Your task to perform on an android device: change notification settings in the gmail app Image 0: 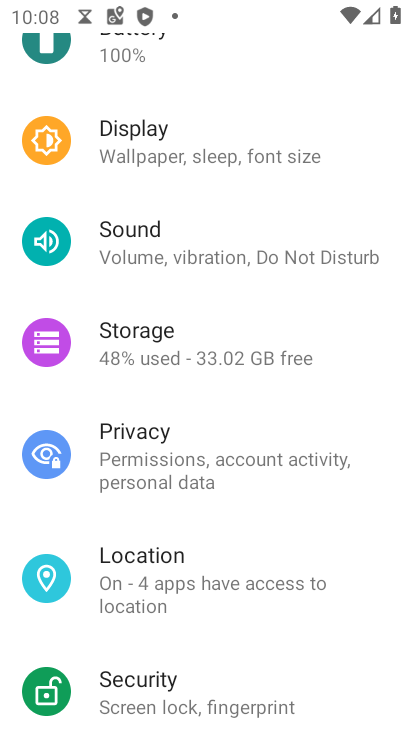
Step 0: press back button
Your task to perform on an android device: change notification settings in the gmail app Image 1: 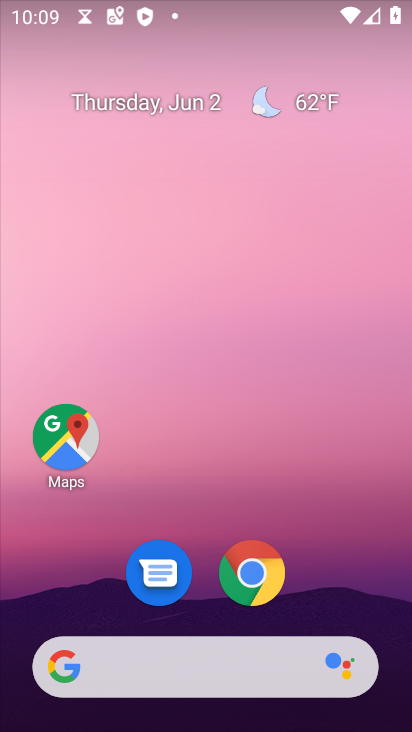
Step 1: drag from (332, 531) to (293, 132)
Your task to perform on an android device: change notification settings in the gmail app Image 2: 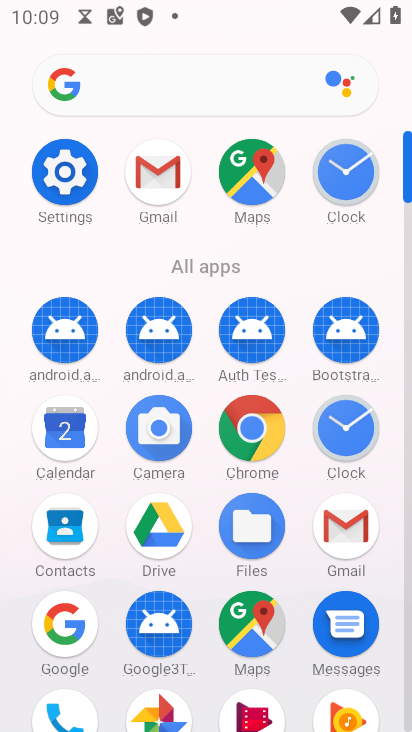
Step 2: click (159, 172)
Your task to perform on an android device: change notification settings in the gmail app Image 3: 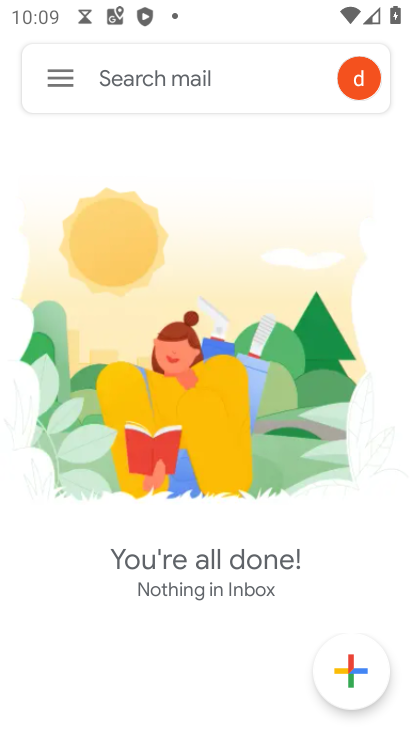
Step 3: click (58, 81)
Your task to perform on an android device: change notification settings in the gmail app Image 4: 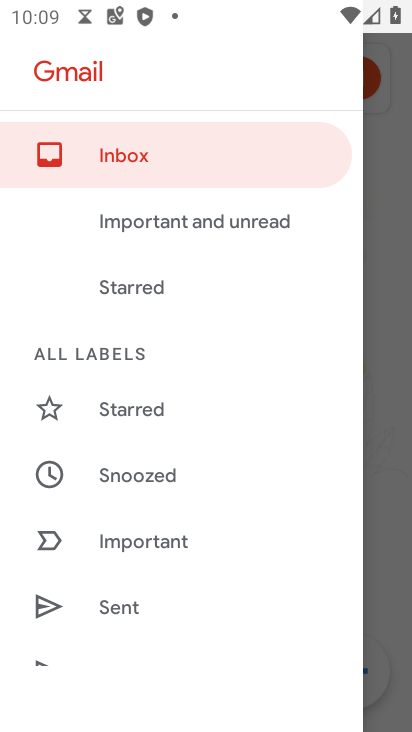
Step 4: drag from (132, 317) to (213, 198)
Your task to perform on an android device: change notification settings in the gmail app Image 5: 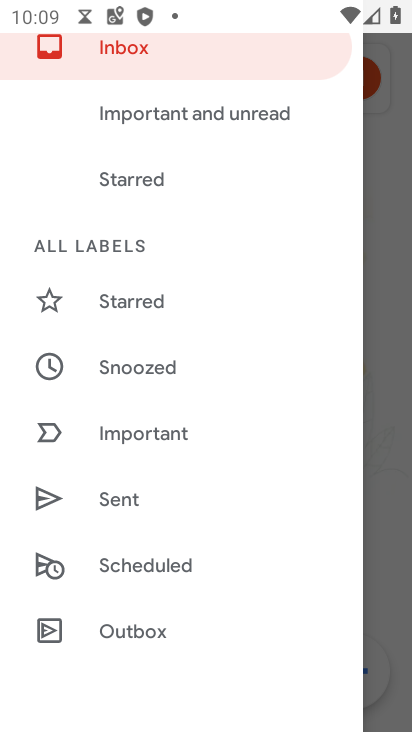
Step 5: drag from (136, 344) to (229, 228)
Your task to perform on an android device: change notification settings in the gmail app Image 6: 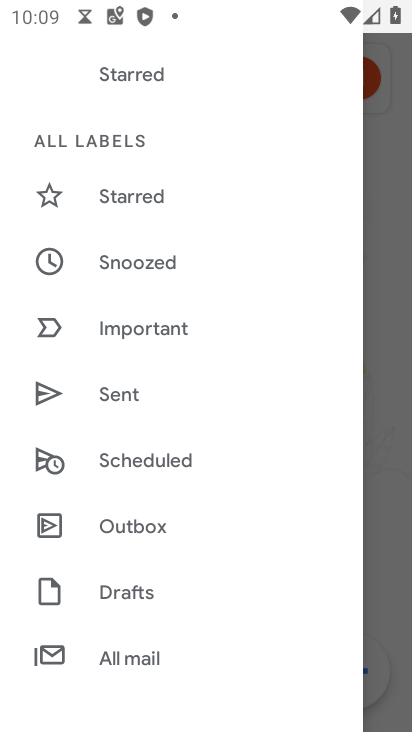
Step 6: drag from (149, 304) to (232, 198)
Your task to perform on an android device: change notification settings in the gmail app Image 7: 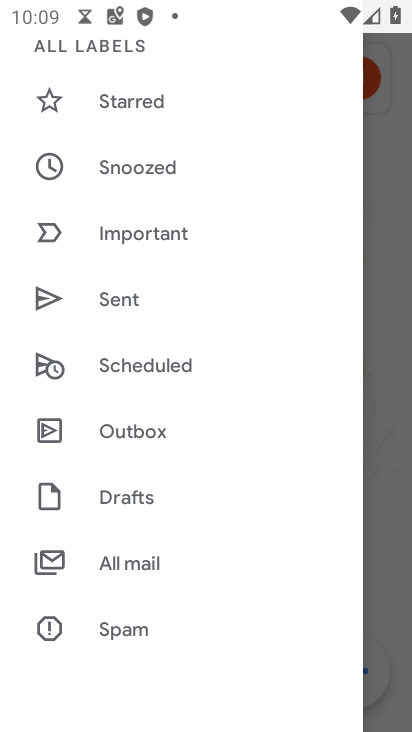
Step 7: drag from (132, 334) to (213, 241)
Your task to perform on an android device: change notification settings in the gmail app Image 8: 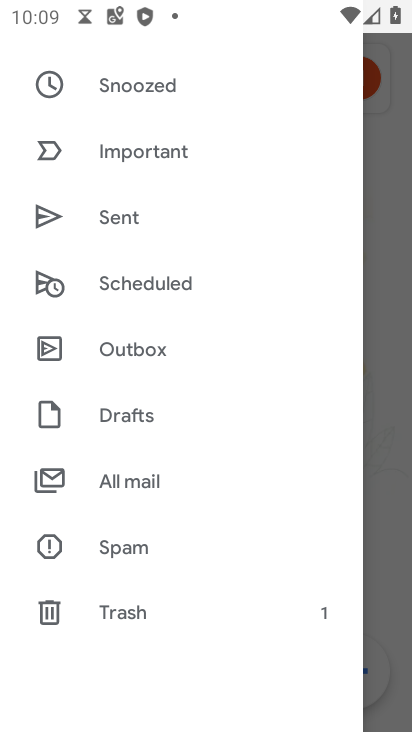
Step 8: drag from (143, 316) to (230, 217)
Your task to perform on an android device: change notification settings in the gmail app Image 9: 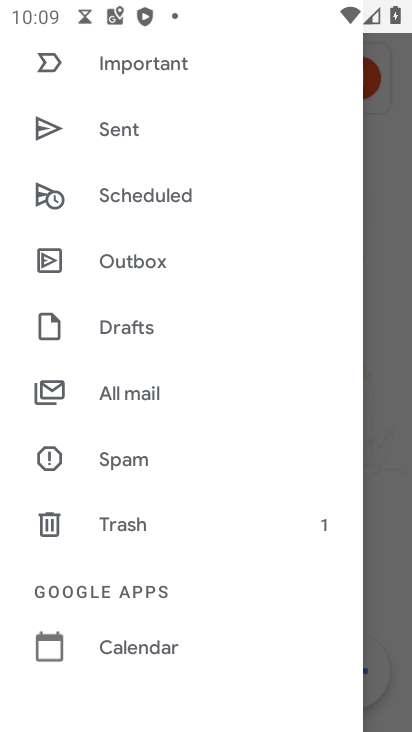
Step 9: drag from (145, 360) to (208, 263)
Your task to perform on an android device: change notification settings in the gmail app Image 10: 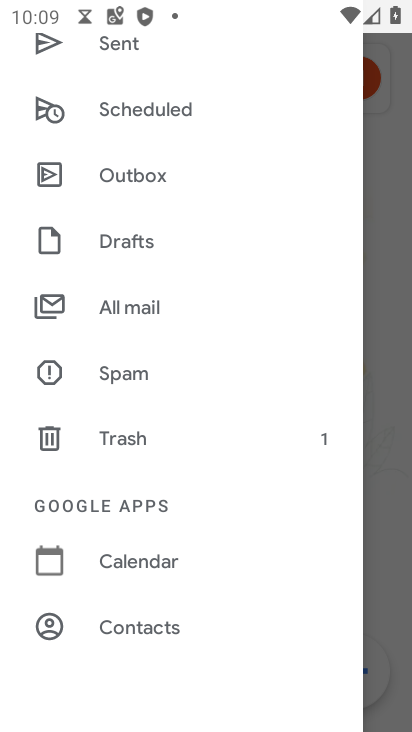
Step 10: drag from (126, 405) to (199, 310)
Your task to perform on an android device: change notification settings in the gmail app Image 11: 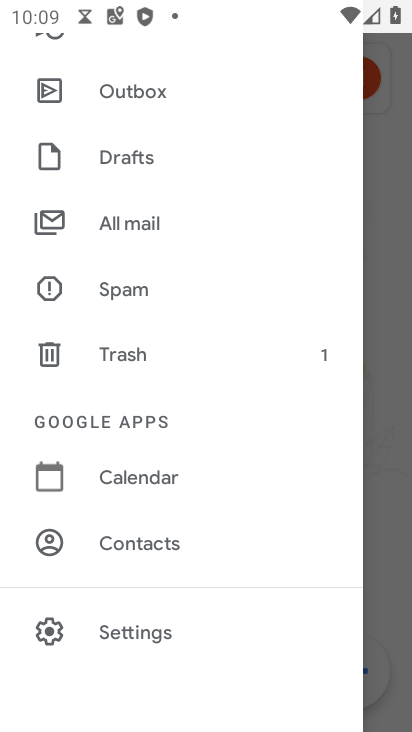
Step 11: drag from (129, 507) to (233, 380)
Your task to perform on an android device: change notification settings in the gmail app Image 12: 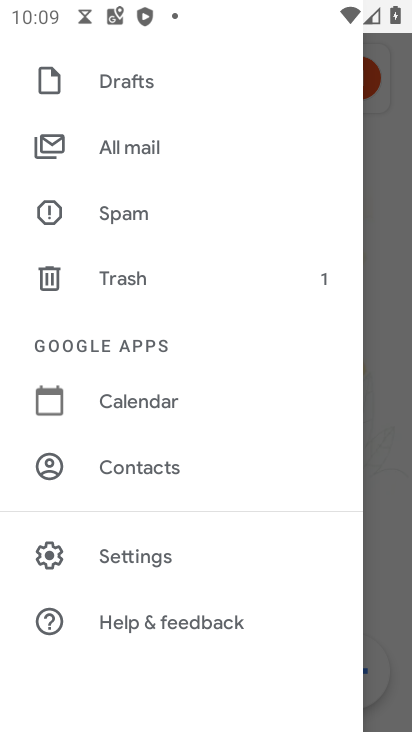
Step 12: click (140, 553)
Your task to perform on an android device: change notification settings in the gmail app Image 13: 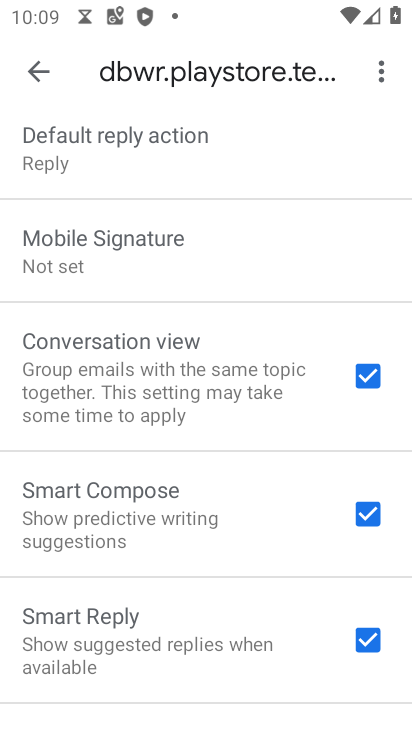
Step 13: drag from (230, 175) to (256, 345)
Your task to perform on an android device: change notification settings in the gmail app Image 14: 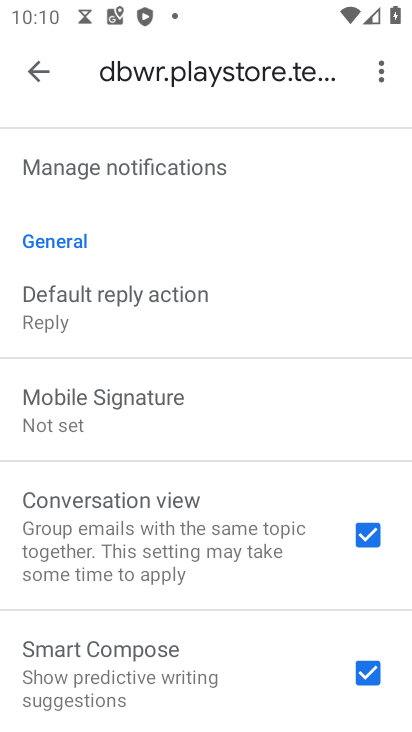
Step 14: click (172, 169)
Your task to perform on an android device: change notification settings in the gmail app Image 15: 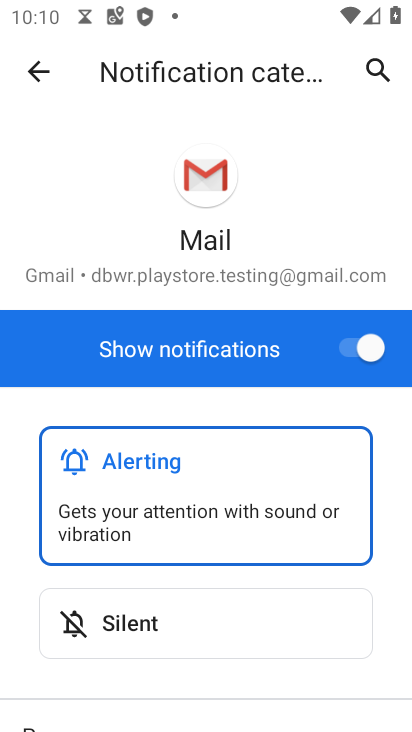
Step 15: click (346, 351)
Your task to perform on an android device: change notification settings in the gmail app Image 16: 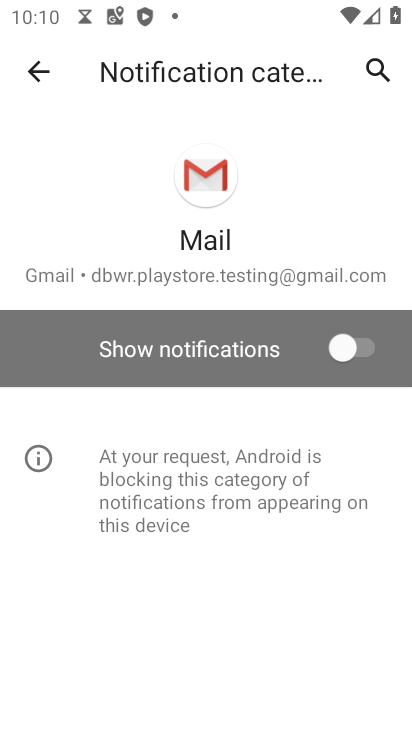
Step 16: task complete